Your task to perform on an android device: Open Google Chrome and click the shortcut for Amazon.com Image 0: 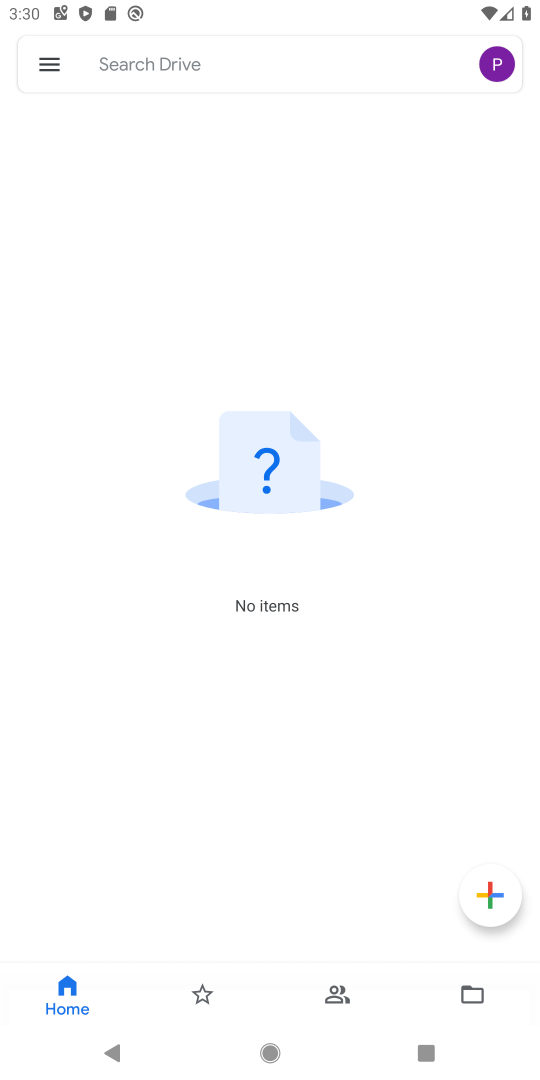
Step 0: press home button
Your task to perform on an android device: Open Google Chrome and click the shortcut for Amazon.com Image 1: 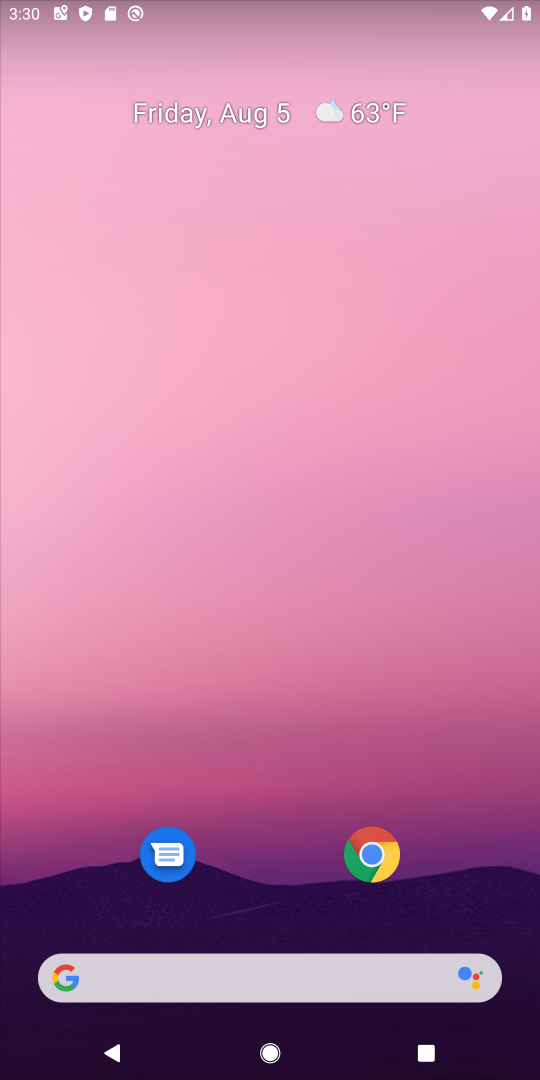
Step 1: click (376, 843)
Your task to perform on an android device: Open Google Chrome and click the shortcut for Amazon.com Image 2: 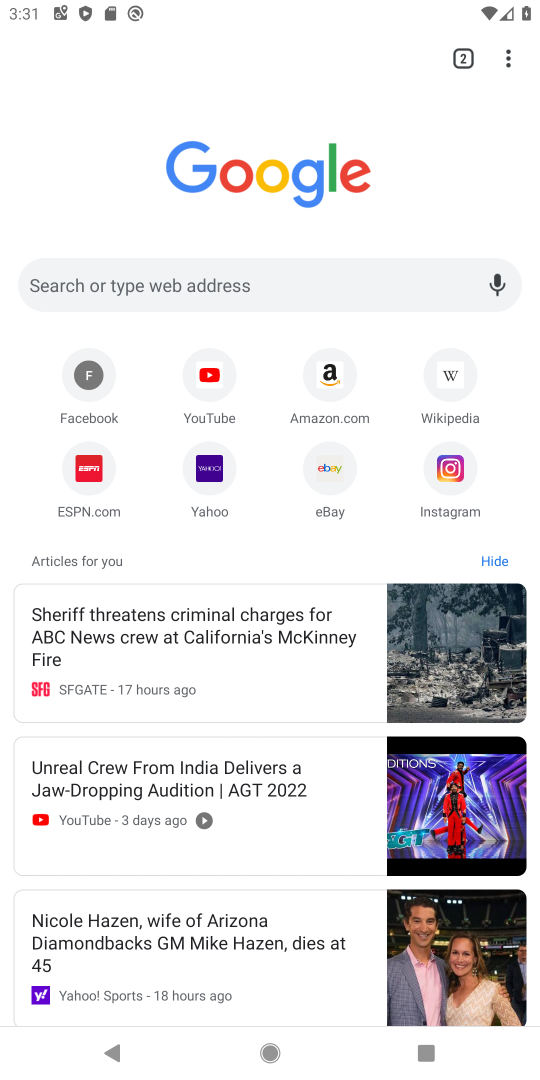
Step 2: click (325, 385)
Your task to perform on an android device: Open Google Chrome and click the shortcut for Amazon.com Image 3: 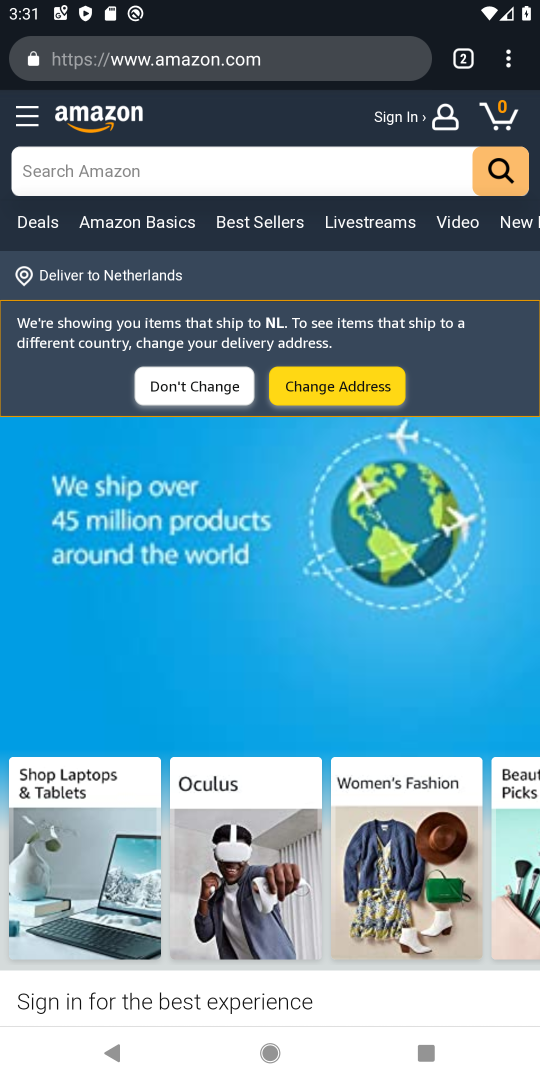
Step 3: task complete